Your task to perform on an android device: Open Google Maps Image 0: 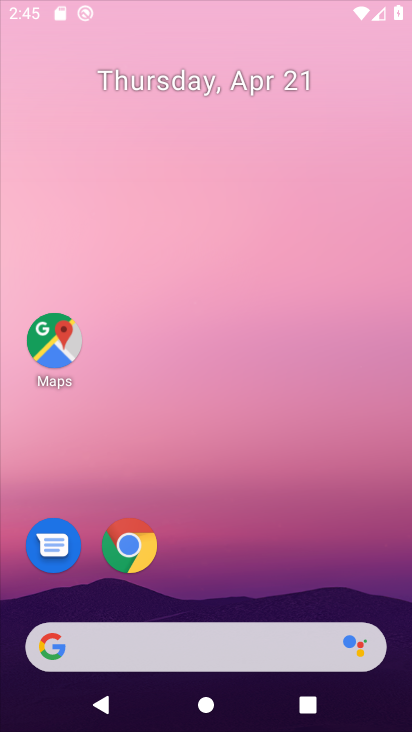
Step 0: drag from (309, 561) to (150, 82)
Your task to perform on an android device: Open Google Maps Image 1: 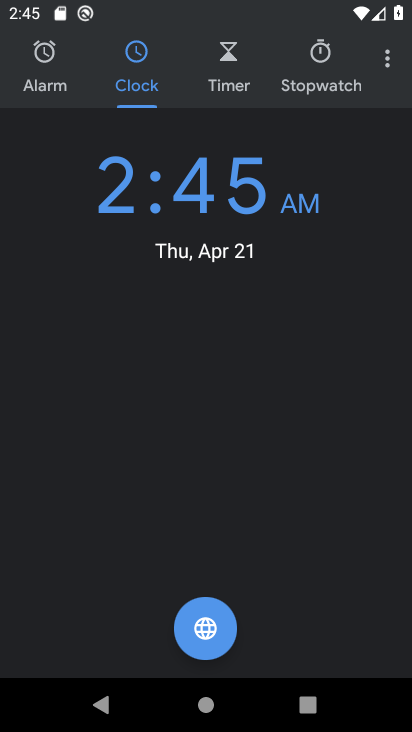
Step 1: press home button
Your task to perform on an android device: Open Google Maps Image 2: 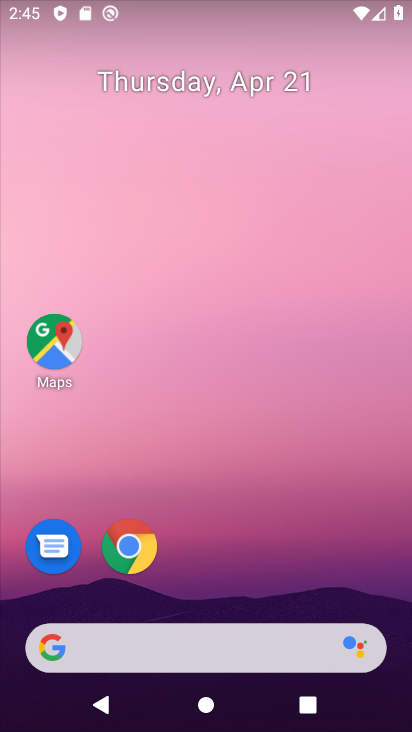
Step 2: click (44, 347)
Your task to perform on an android device: Open Google Maps Image 3: 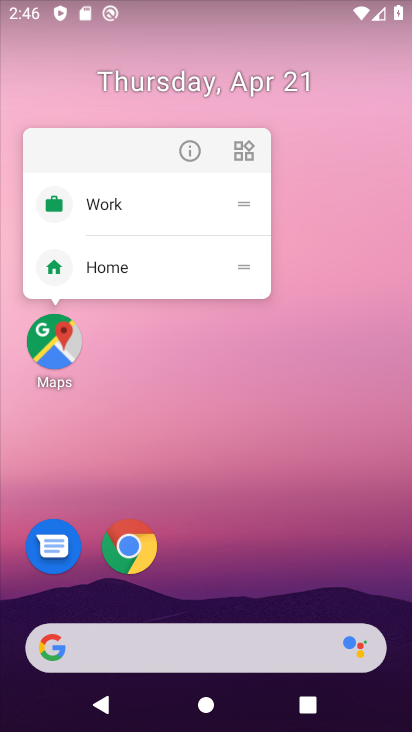
Step 3: click (70, 342)
Your task to perform on an android device: Open Google Maps Image 4: 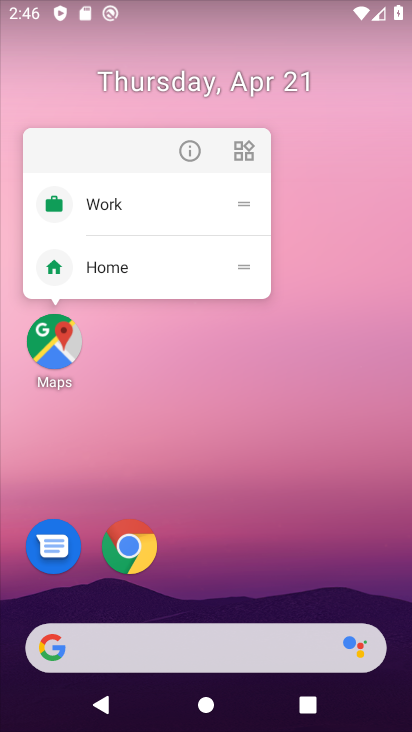
Step 4: click (59, 347)
Your task to perform on an android device: Open Google Maps Image 5: 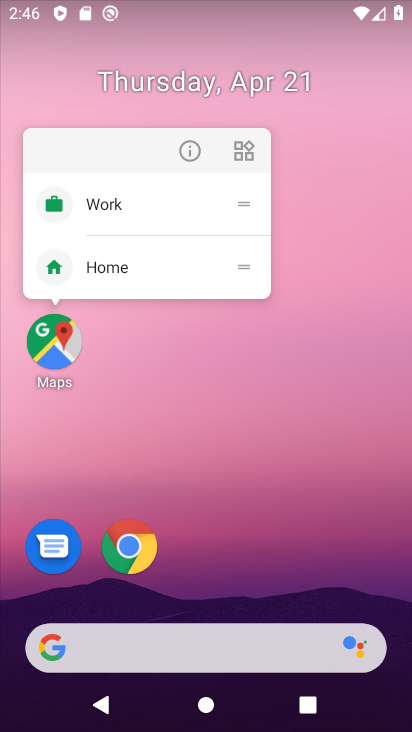
Step 5: click (58, 348)
Your task to perform on an android device: Open Google Maps Image 6: 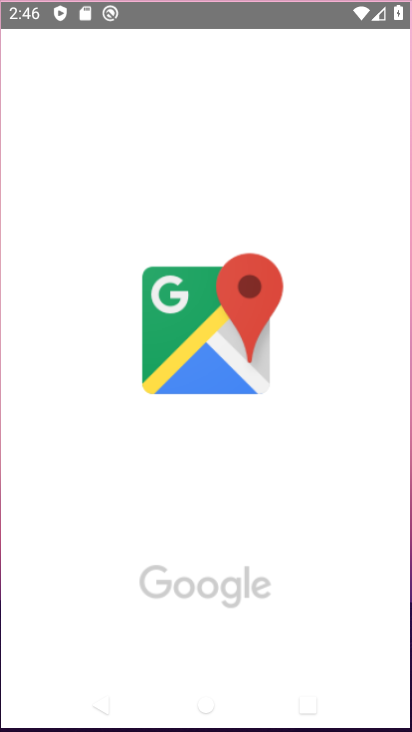
Step 6: click (35, 320)
Your task to perform on an android device: Open Google Maps Image 7: 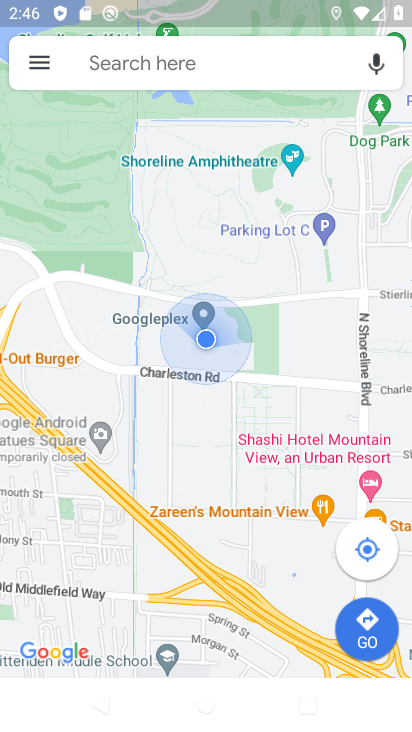
Step 7: task complete